Your task to perform on an android device: search for starred emails in the gmail app Image 0: 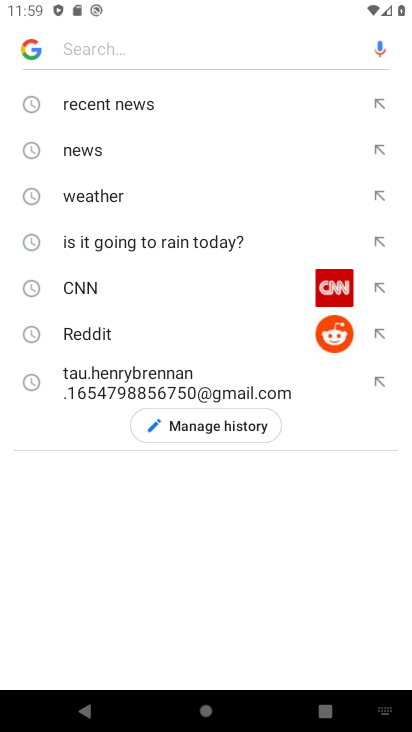
Step 0: press home button
Your task to perform on an android device: search for starred emails in the gmail app Image 1: 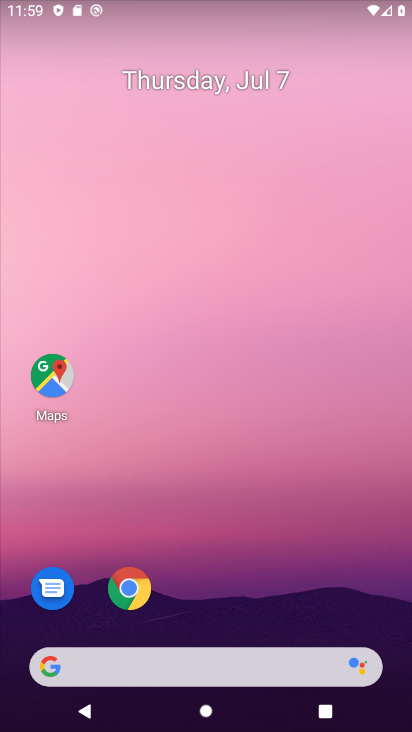
Step 1: drag from (165, 542) to (175, 54)
Your task to perform on an android device: search for starred emails in the gmail app Image 2: 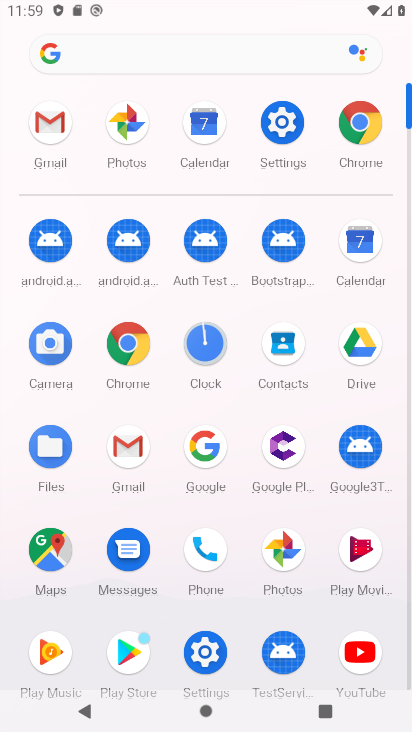
Step 2: click (46, 136)
Your task to perform on an android device: search for starred emails in the gmail app Image 3: 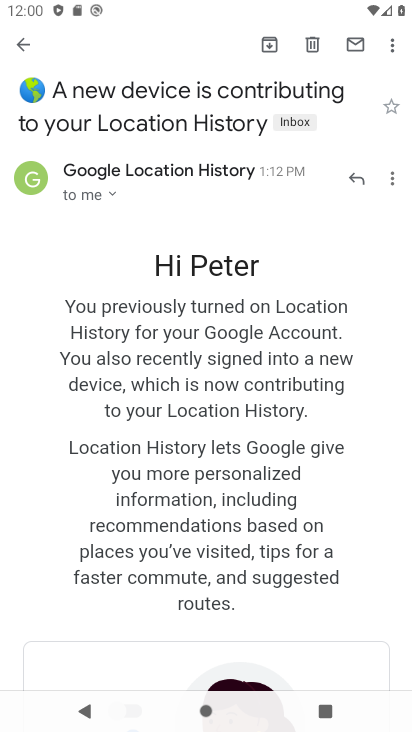
Step 3: click (20, 41)
Your task to perform on an android device: search for starred emails in the gmail app Image 4: 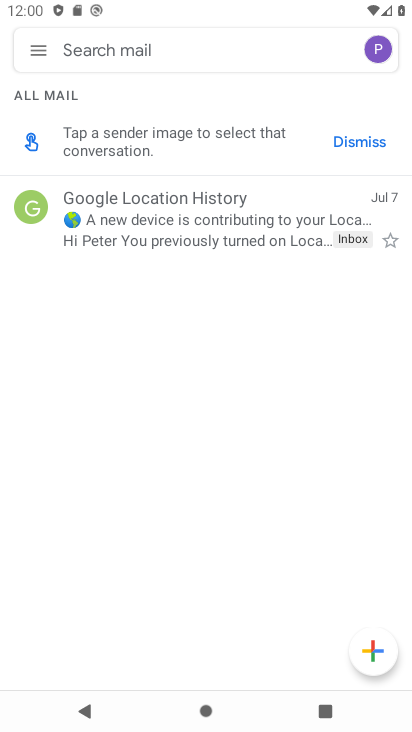
Step 4: click (33, 41)
Your task to perform on an android device: search for starred emails in the gmail app Image 5: 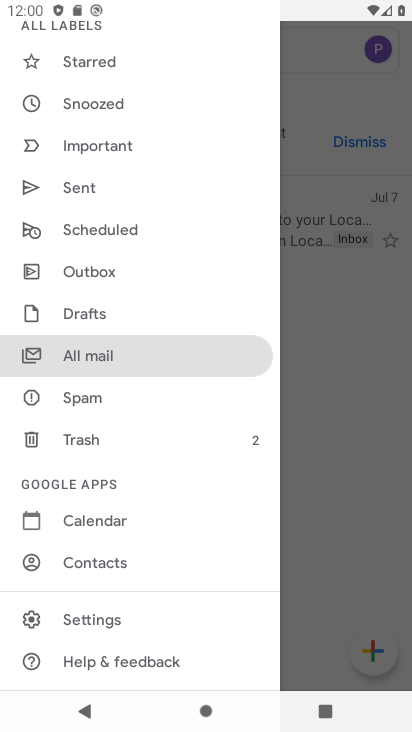
Step 5: click (86, 63)
Your task to perform on an android device: search for starred emails in the gmail app Image 6: 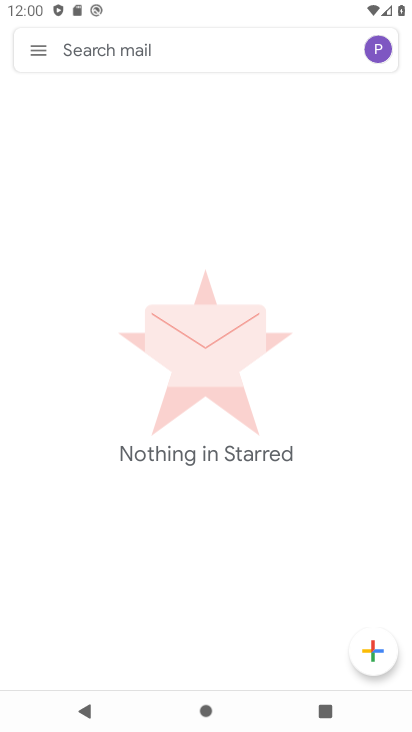
Step 6: task complete